Your task to perform on an android device: Go to location settings Image 0: 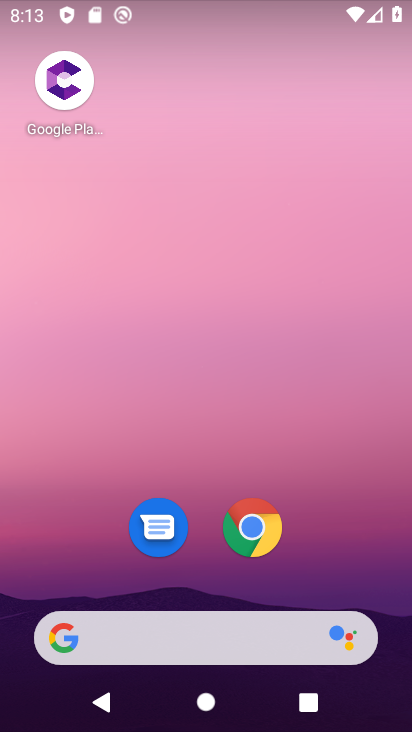
Step 0: drag from (358, 526) to (347, 41)
Your task to perform on an android device: Go to location settings Image 1: 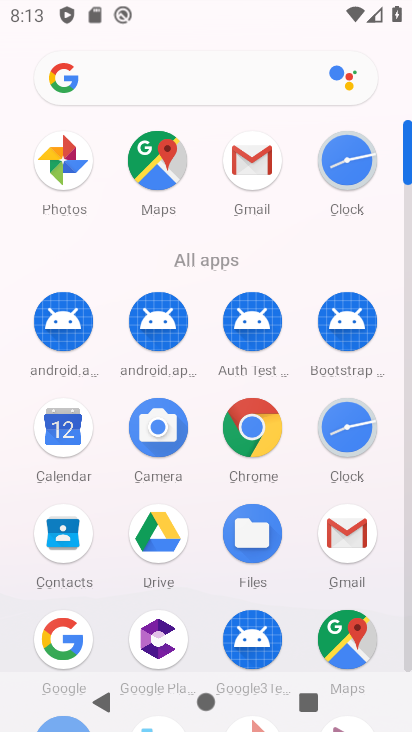
Step 1: click (406, 657)
Your task to perform on an android device: Go to location settings Image 2: 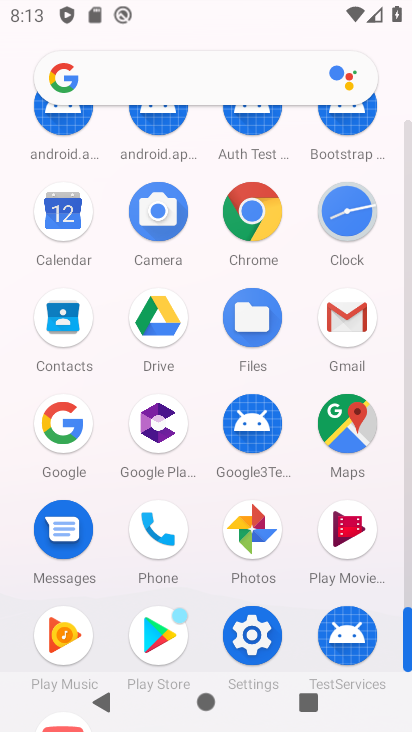
Step 2: click (254, 641)
Your task to perform on an android device: Go to location settings Image 3: 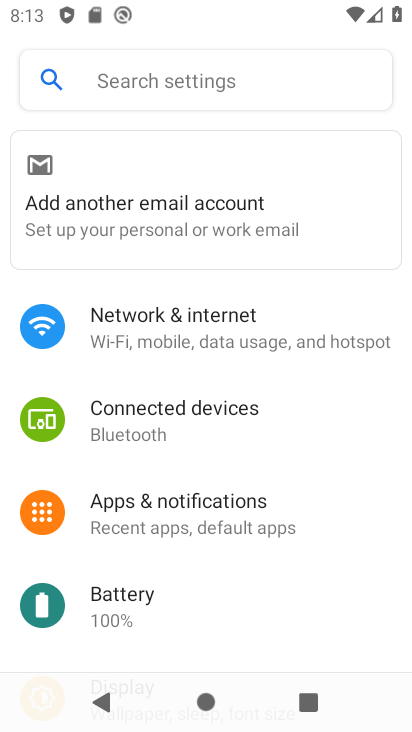
Step 3: drag from (241, 548) to (236, 172)
Your task to perform on an android device: Go to location settings Image 4: 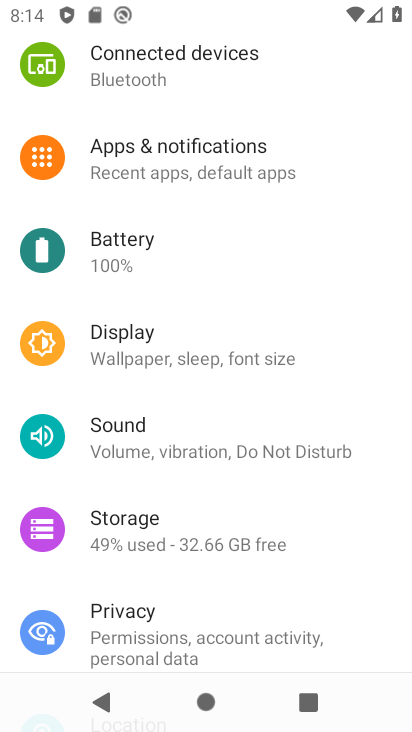
Step 4: drag from (266, 525) to (251, 210)
Your task to perform on an android device: Go to location settings Image 5: 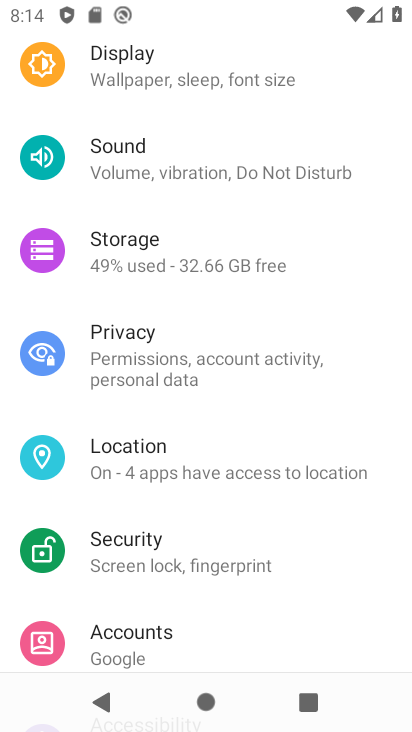
Step 5: click (237, 462)
Your task to perform on an android device: Go to location settings Image 6: 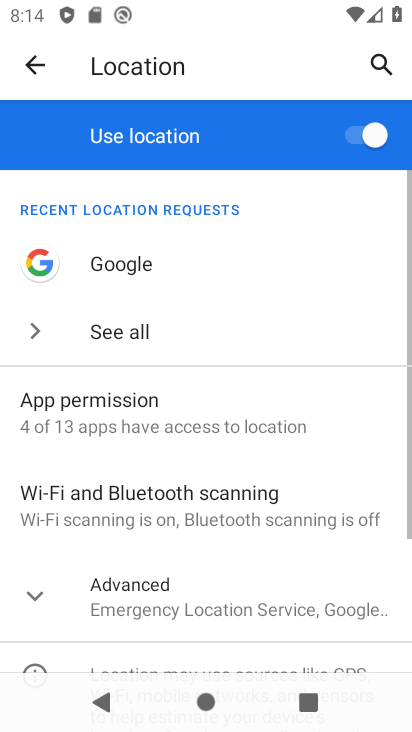
Step 6: drag from (250, 529) to (258, 328)
Your task to perform on an android device: Go to location settings Image 7: 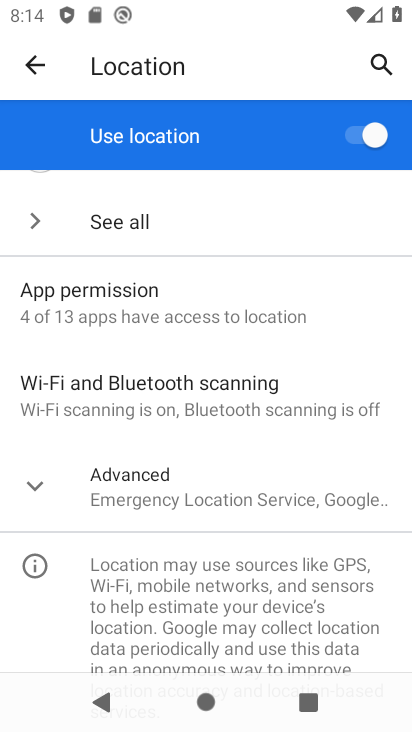
Step 7: click (223, 499)
Your task to perform on an android device: Go to location settings Image 8: 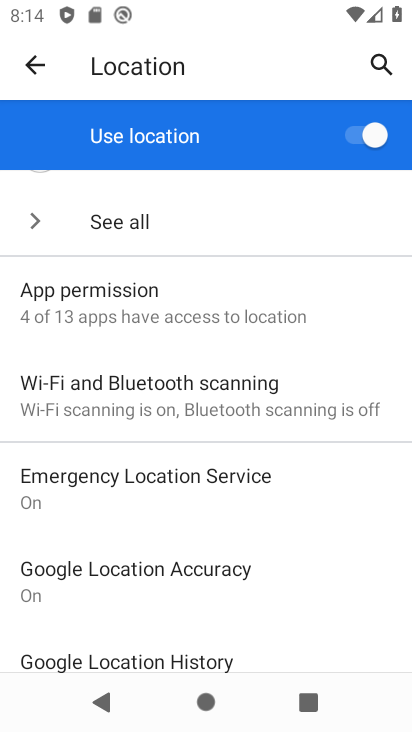
Step 8: task complete